Your task to perform on an android device: Open display settings Image 0: 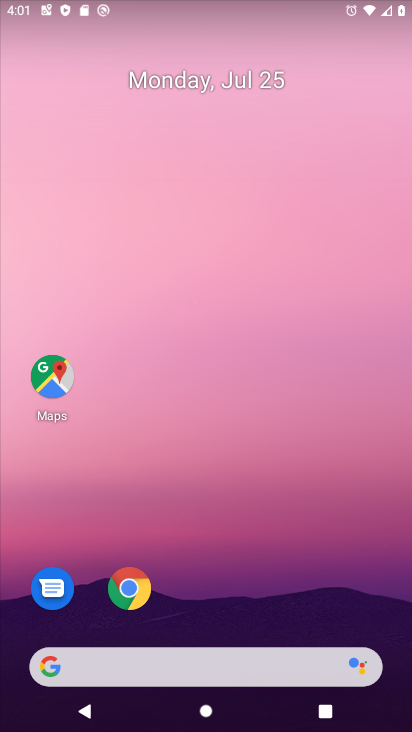
Step 0: drag from (240, 685) to (261, 26)
Your task to perform on an android device: Open display settings Image 1: 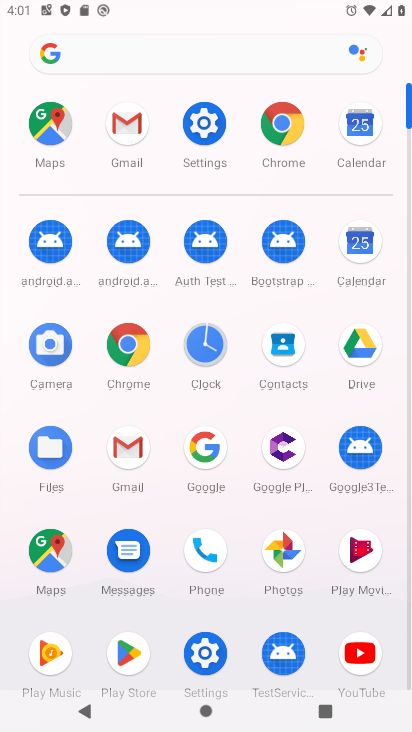
Step 1: click (214, 123)
Your task to perform on an android device: Open display settings Image 2: 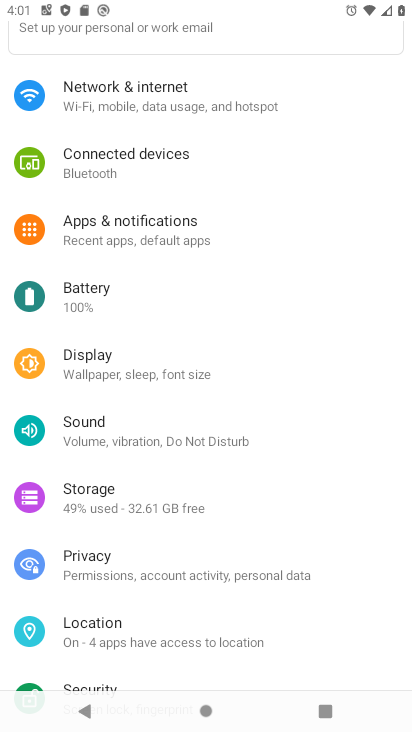
Step 2: click (92, 361)
Your task to perform on an android device: Open display settings Image 3: 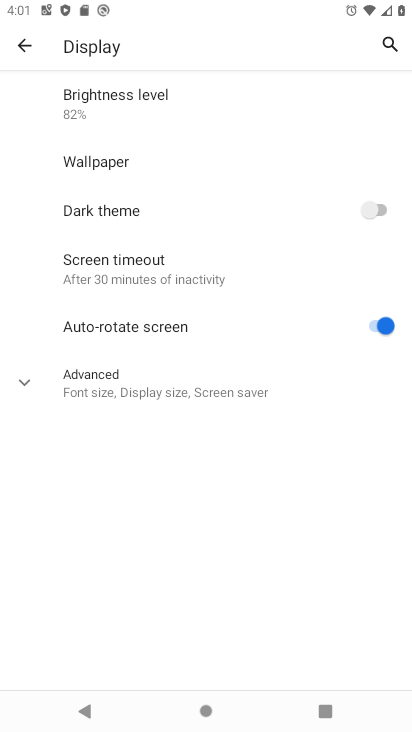
Step 3: task complete